Your task to perform on an android device: Open settings Image 0: 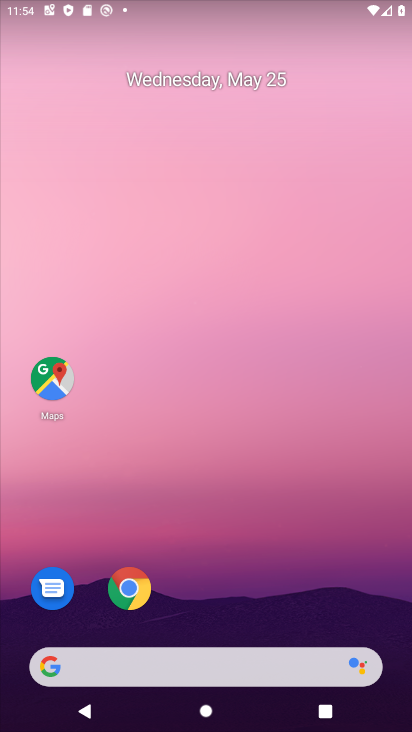
Step 0: drag from (267, 551) to (218, 19)
Your task to perform on an android device: Open settings Image 1: 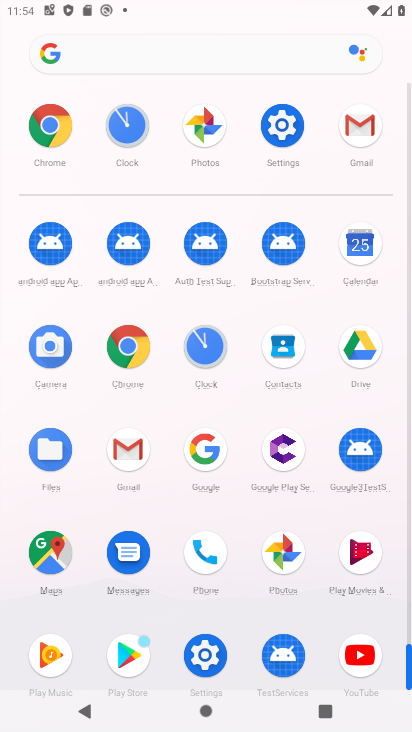
Step 1: click (203, 651)
Your task to perform on an android device: Open settings Image 2: 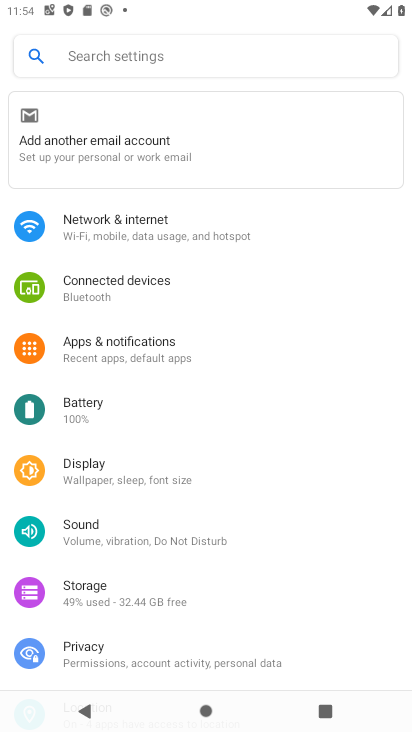
Step 2: task complete